Your task to perform on an android device: Go to internet settings Image 0: 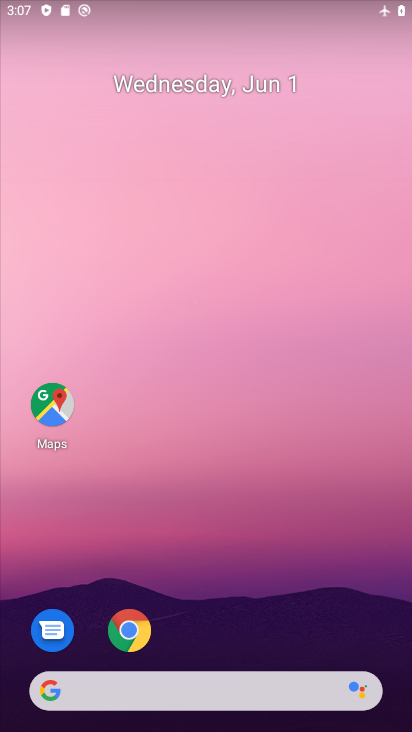
Step 0: press home button
Your task to perform on an android device: Go to internet settings Image 1: 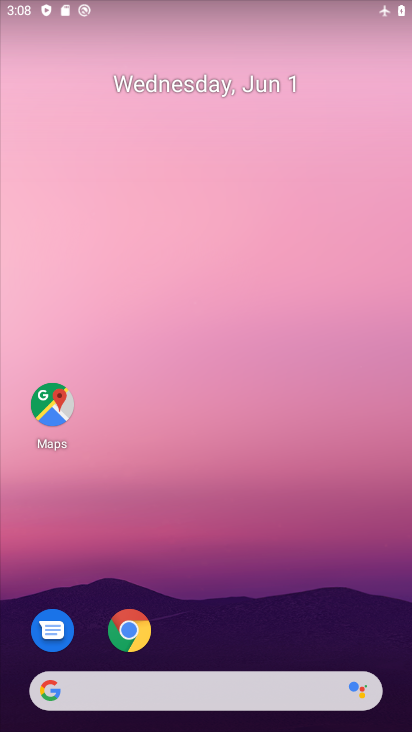
Step 1: drag from (242, 631) to (198, 211)
Your task to perform on an android device: Go to internet settings Image 2: 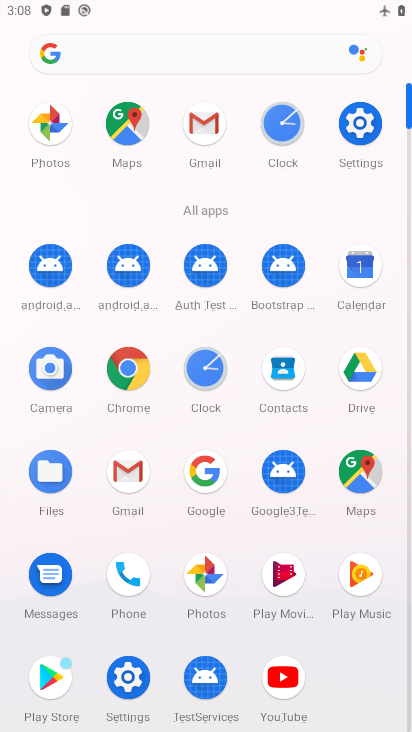
Step 2: click (123, 672)
Your task to perform on an android device: Go to internet settings Image 3: 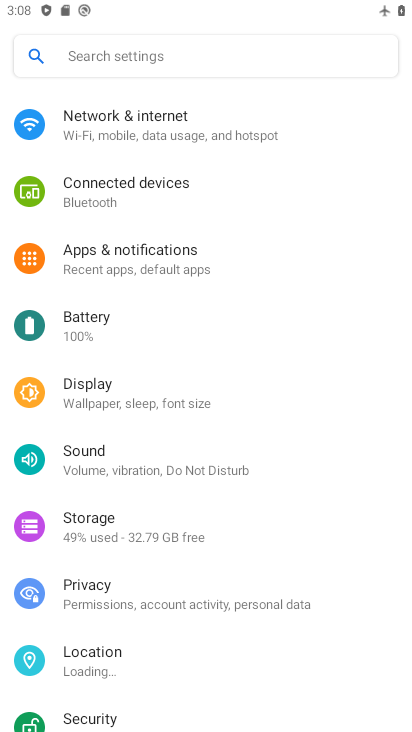
Step 3: click (141, 117)
Your task to perform on an android device: Go to internet settings Image 4: 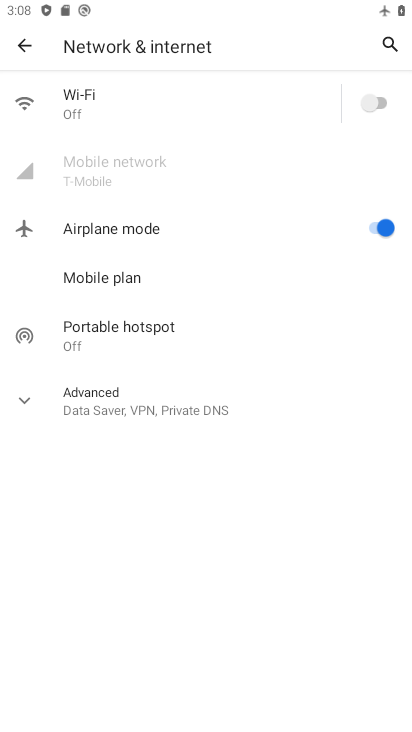
Step 4: task complete